Your task to perform on an android device: see tabs open on other devices in the chrome app Image 0: 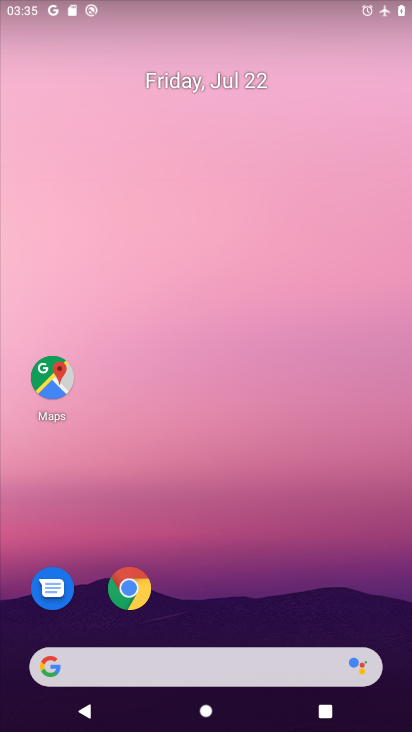
Step 0: drag from (253, 650) to (289, 58)
Your task to perform on an android device: see tabs open on other devices in the chrome app Image 1: 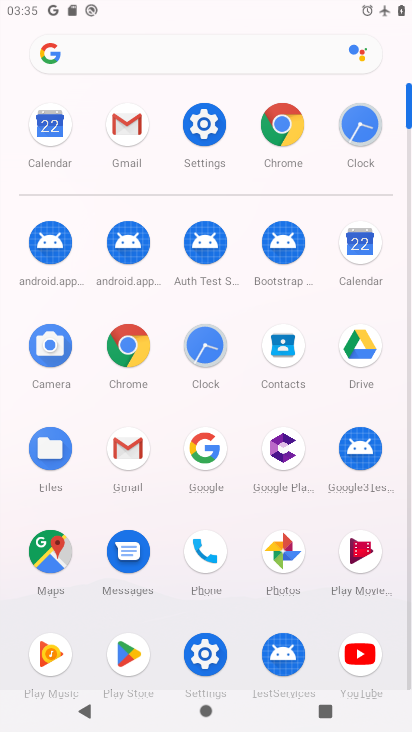
Step 1: click (105, 340)
Your task to perform on an android device: see tabs open on other devices in the chrome app Image 2: 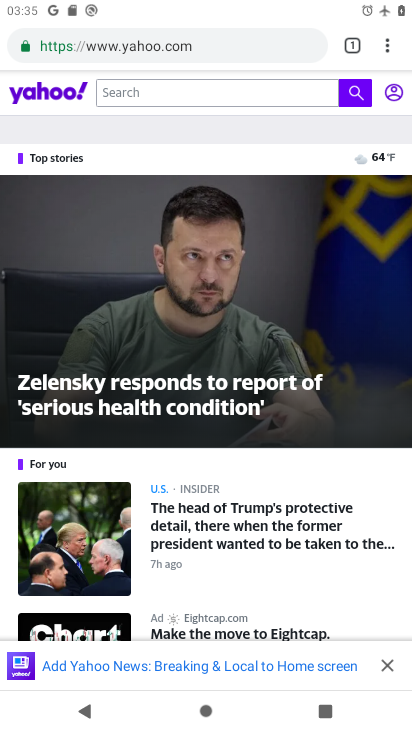
Step 2: task complete